Your task to perform on an android device: turn on sleep mode Image 0: 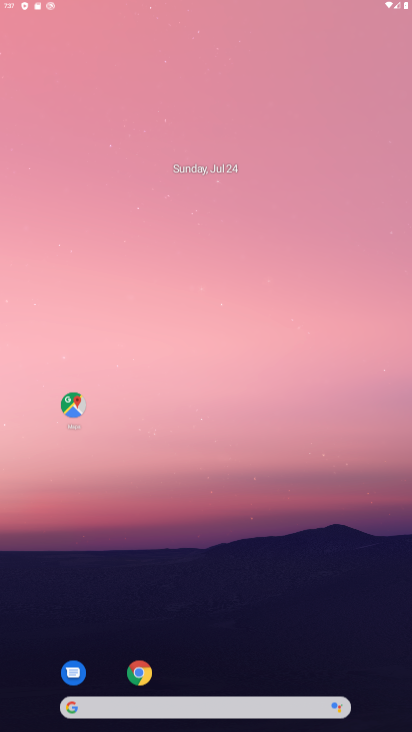
Step 0: click (148, 109)
Your task to perform on an android device: turn on sleep mode Image 1: 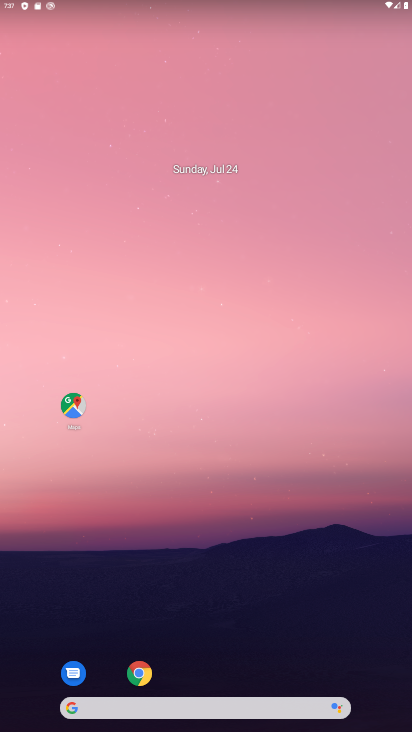
Step 1: drag from (184, 689) to (189, 63)
Your task to perform on an android device: turn on sleep mode Image 2: 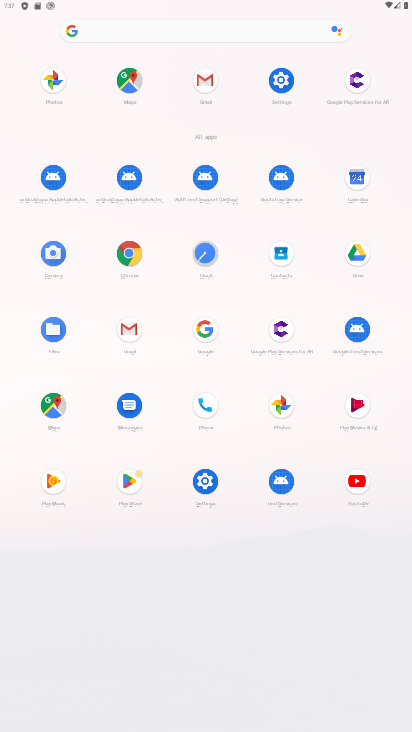
Step 2: click (282, 80)
Your task to perform on an android device: turn on sleep mode Image 3: 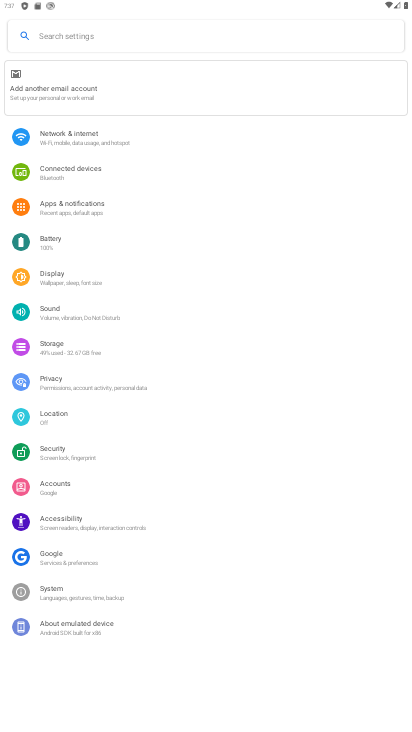
Step 3: click (49, 278)
Your task to perform on an android device: turn on sleep mode Image 4: 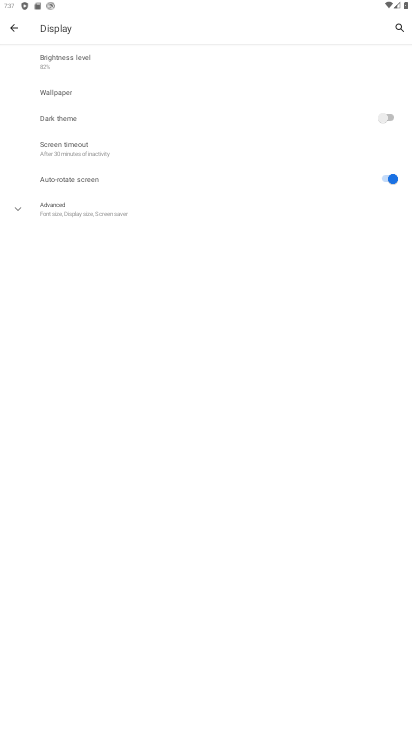
Step 4: click (71, 156)
Your task to perform on an android device: turn on sleep mode Image 5: 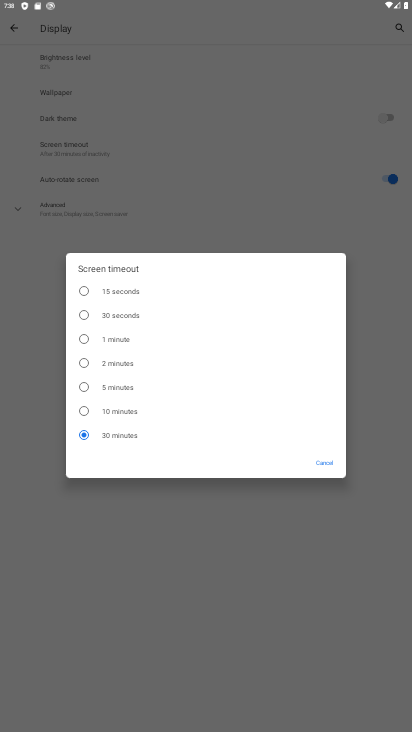
Step 5: click (91, 298)
Your task to perform on an android device: turn on sleep mode Image 6: 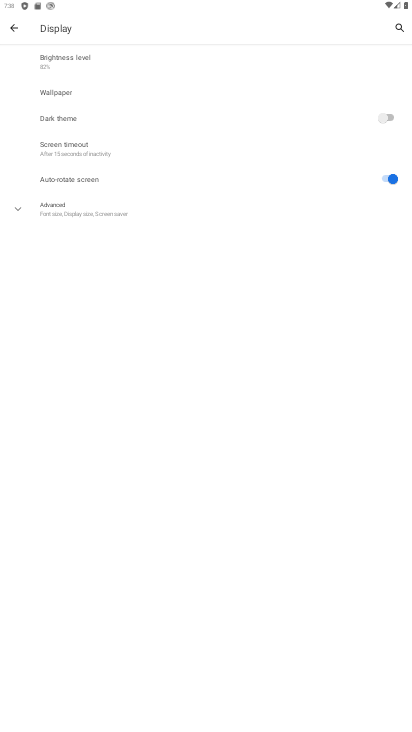
Step 6: task complete